Your task to perform on an android device: turn on translation in the chrome app Image 0: 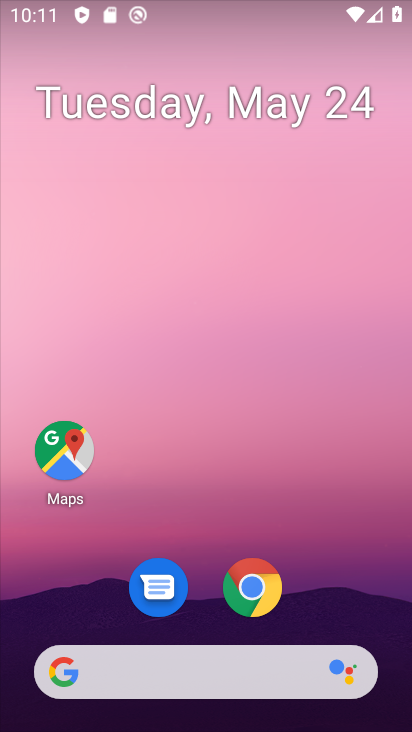
Step 0: press home button
Your task to perform on an android device: turn on translation in the chrome app Image 1: 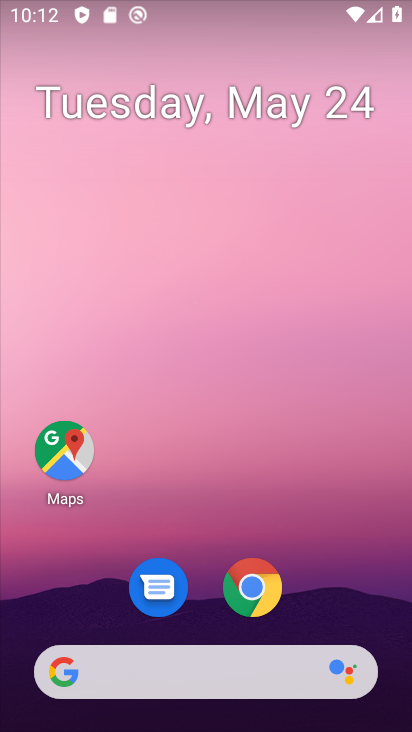
Step 1: click (260, 588)
Your task to perform on an android device: turn on translation in the chrome app Image 2: 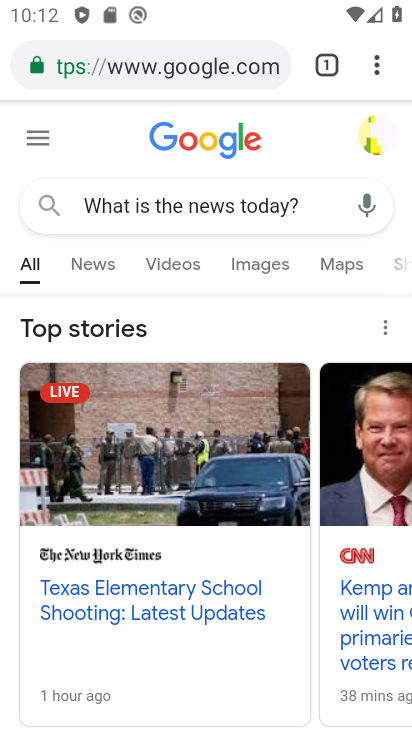
Step 2: click (383, 57)
Your task to perform on an android device: turn on translation in the chrome app Image 3: 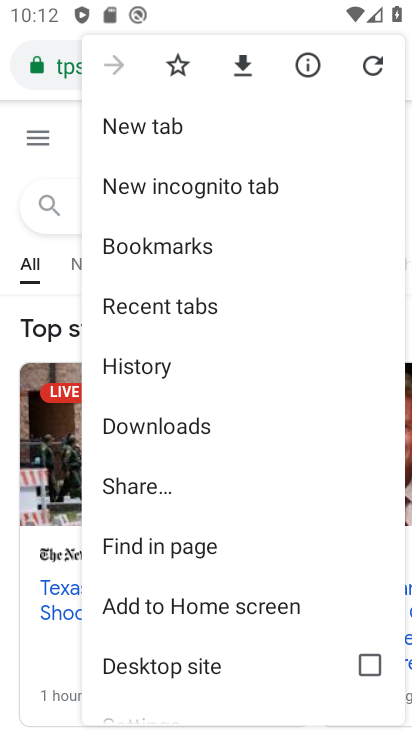
Step 3: drag from (209, 665) to (207, 337)
Your task to perform on an android device: turn on translation in the chrome app Image 4: 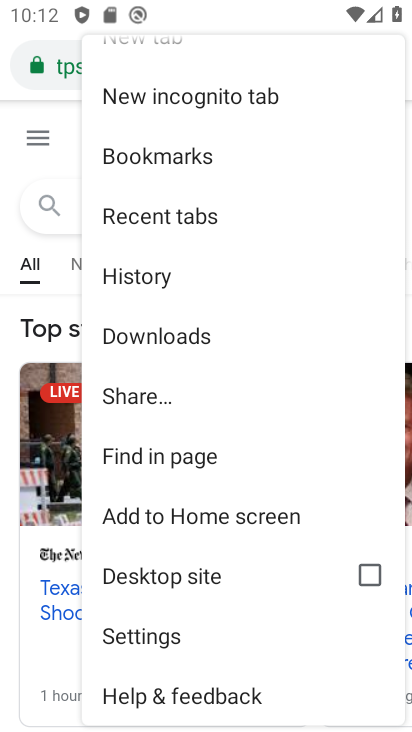
Step 4: click (150, 643)
Your task to perform on an android device: turn on translation in the chrome app Image 5: 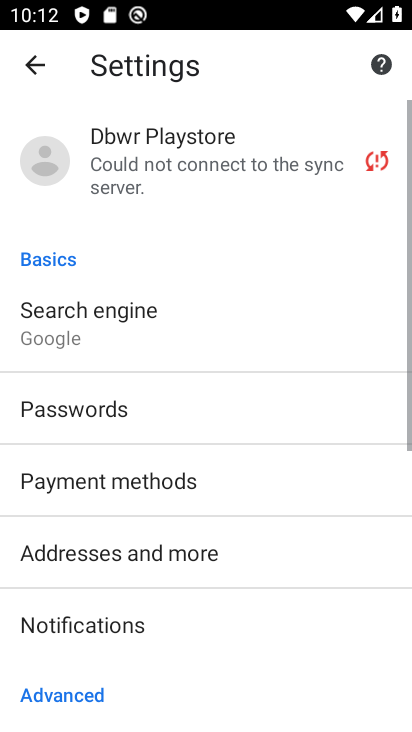
Step 5: drag from (150, 643) to (278, 258)
Your task to perform on an android device: turn on translation in the chrome app Image 6: 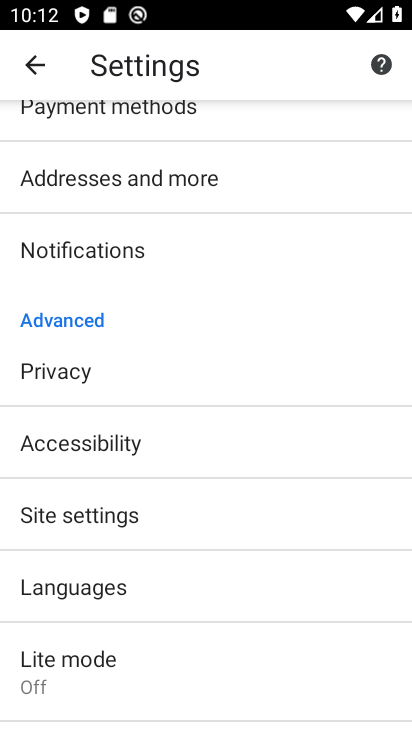
Step 6: click (81, 604)
Your task to perform on an android device: turn on translation in the chrome app Image 7: 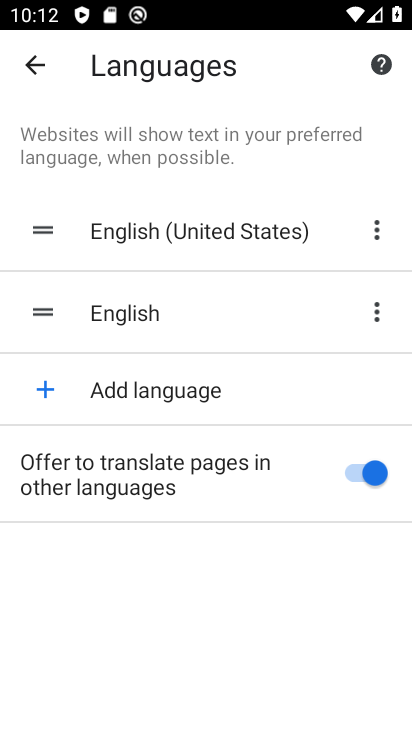
Step 7: task complete